Your task to perform on an android device: turn on showing notifications on the lock screen Image 0: 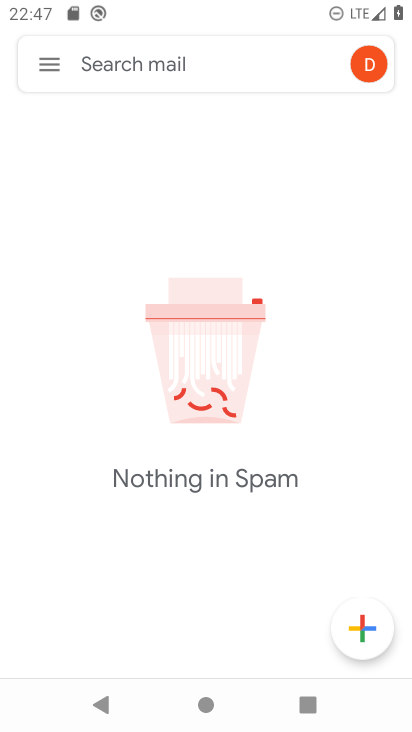
Step 0: press home button
Your task to perform on an android device: turn on showing notifications on the lock screen Image 1: 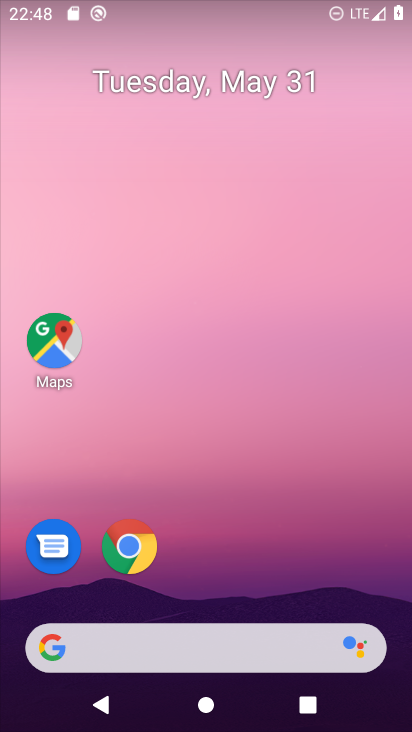
Step 1: drag from (400, 686) to (355, 135)
Your task to perform on an android device: turn on showing notifications on the lock screen Image 2: 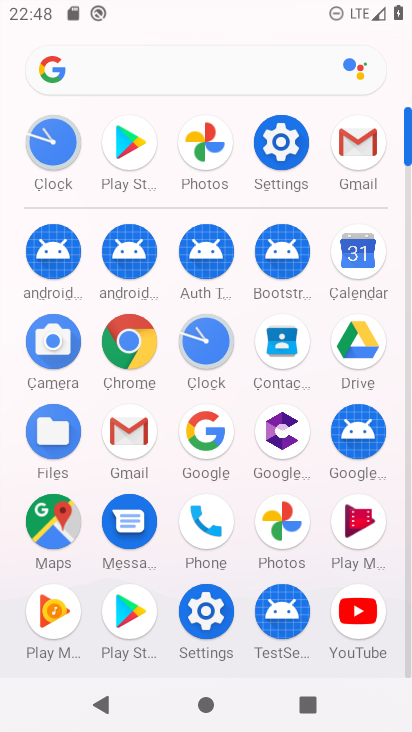
Step 2: click (204, 611)
Your task to perform on an android device: turn on showing notifications on the lock screen Image 3: 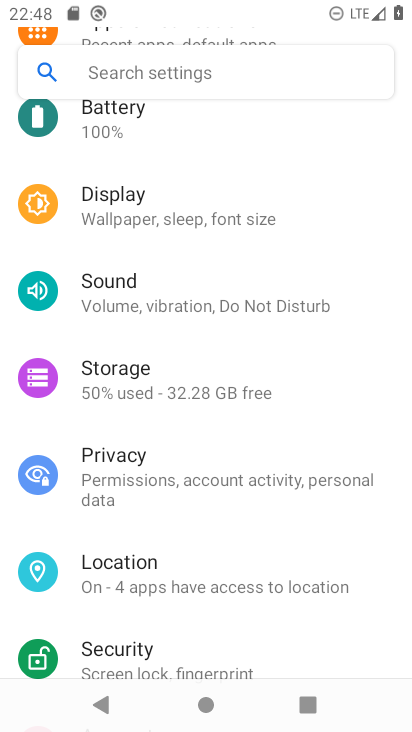
Step 3: drag from (263, 168) to (277, 465)
Your task to perform on an android device: turn on showing notifications on the lock screen Image 4: 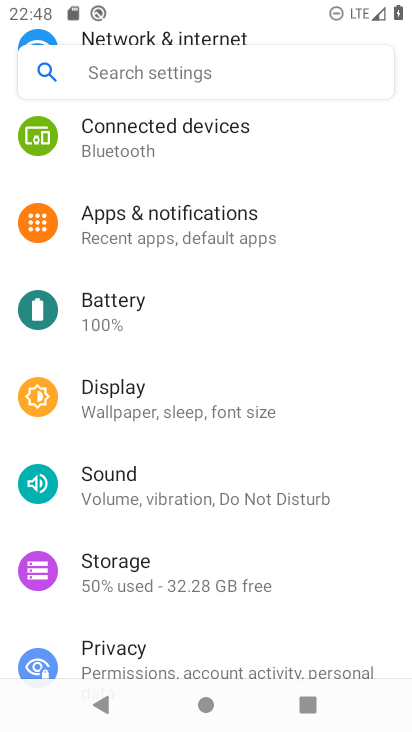
Step 4: click (164, 227)
Your task to perform on an android device: turn on showing notifications on the lock screen Image 5: 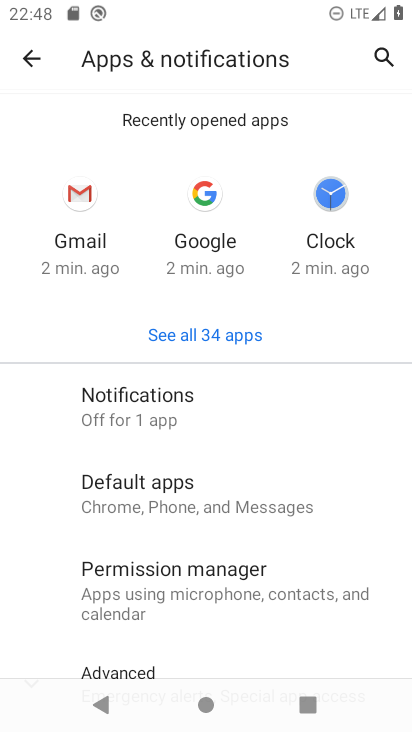
Step 5: click (136, 409)
Your task to perform on an android device: turn on showing notifications on the lock screen Image 6: 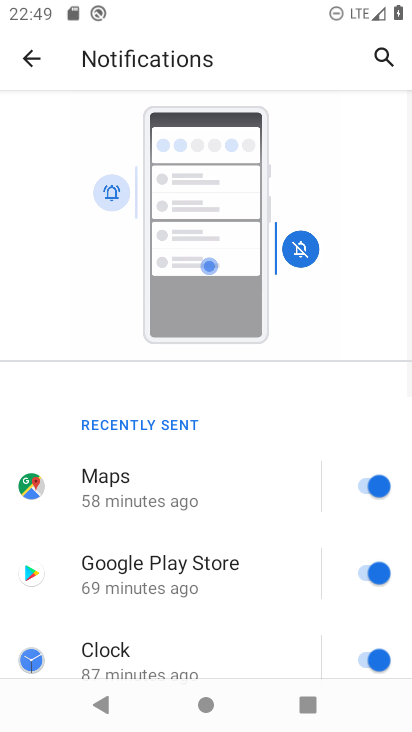
Step 6: drag from (259, 647) to (233, 114)
Your task to perform on an android device: turn on showing notifications on the lock screen Image 7: 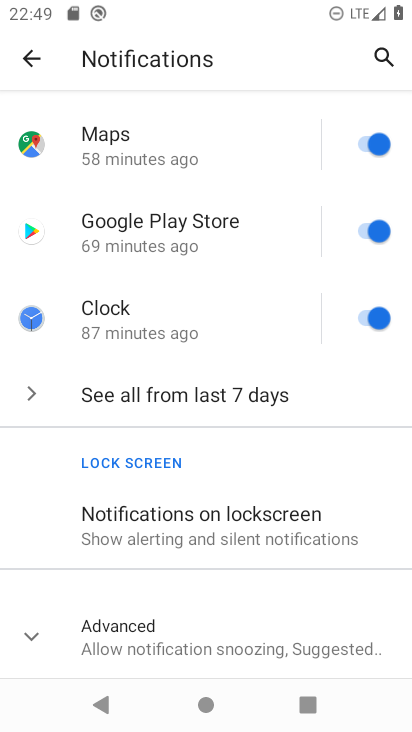
Step 7: click (190, 517)
Your task to perform on an android device: turn on showing notifications on the lock screen Image 8: 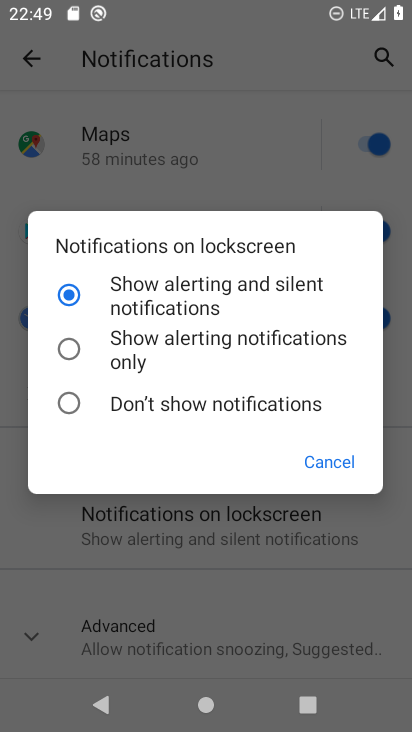
Step 8: task complete